Your task to perform on an android device: Open calendar and show me the second week of next month Image 0: 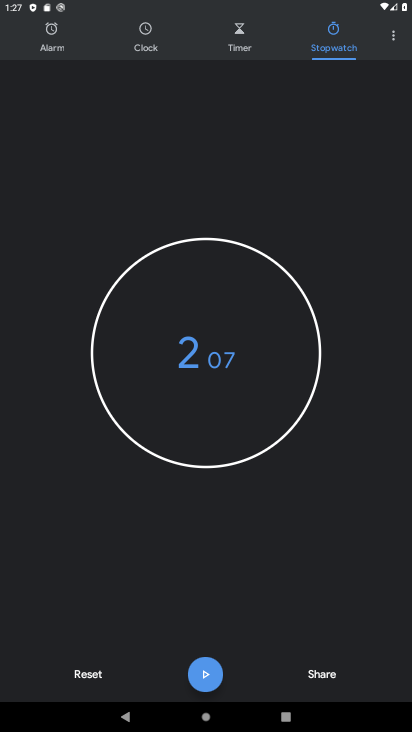
Step 0: press home button
Your task to perform on an android device: Open calendar and show me the second week of next month Image 1: 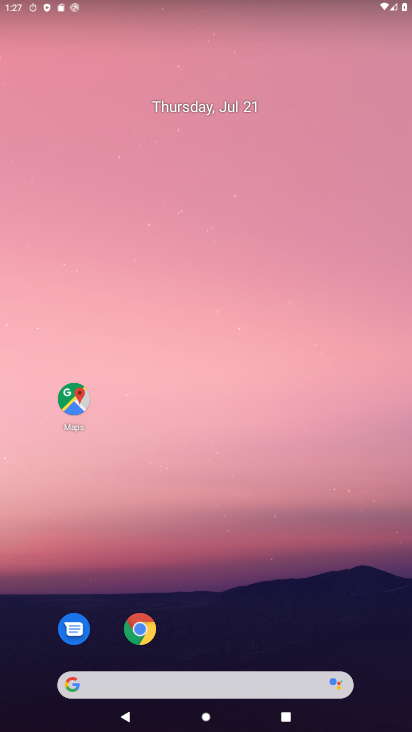
Step 1: drag from (26, 678) to (315, 127)
Your task to perform on an android device: Open calendar and show me the second week of next month Image 2: 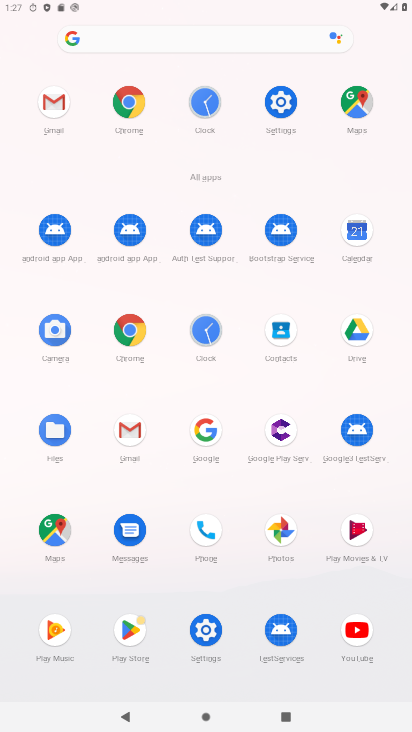
Step 2: click (351, 230)
Your task to perform on an android device: Open calendar and show me the second week of next month Image 3: 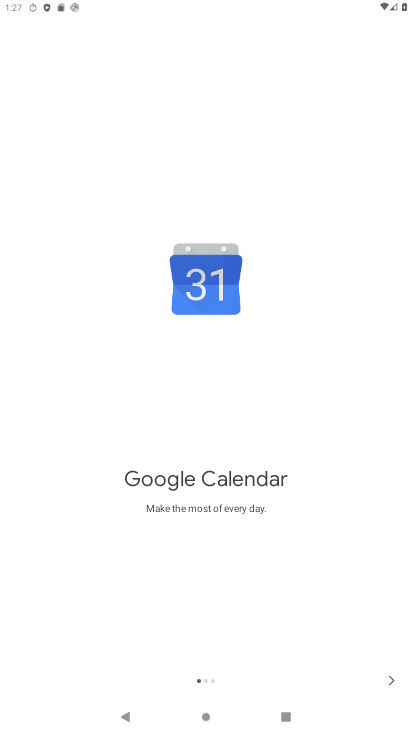
Step 3: click (393, 680)
Your task to perform on an android device: Open calendar and show me the second week of next month Image 4: 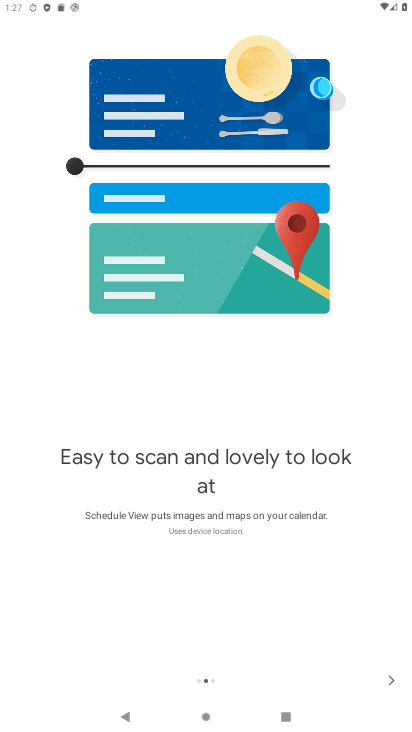
Step 4: click (394, 680)
Your task to perform on an android device: Open calendar and show me the second week of next month Image 5: 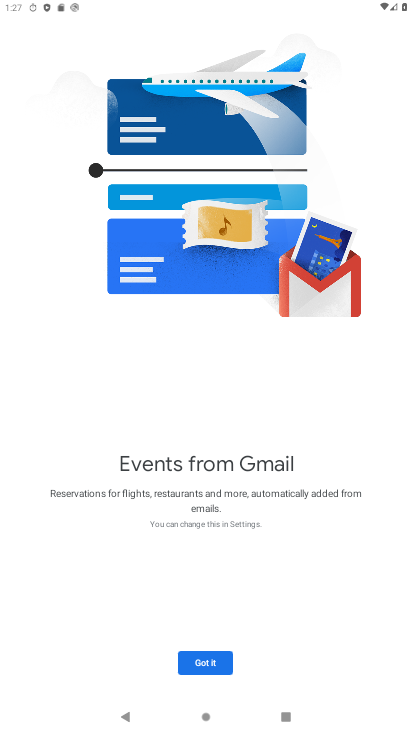
Step 5: click (182, 662)
Your task to perform on an android device: Open calendar and show me the second week of next month Image 6: 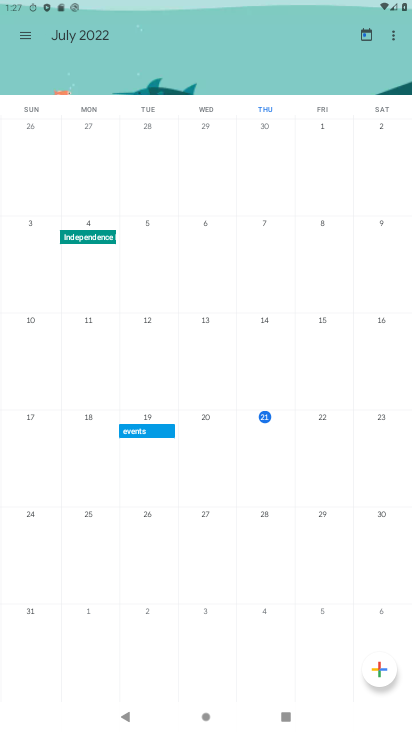
Step 6: drag from (402, 217) to (54, 174)
Your task to perform on an android device: Open calendar and show me the second week of next month Image 7: 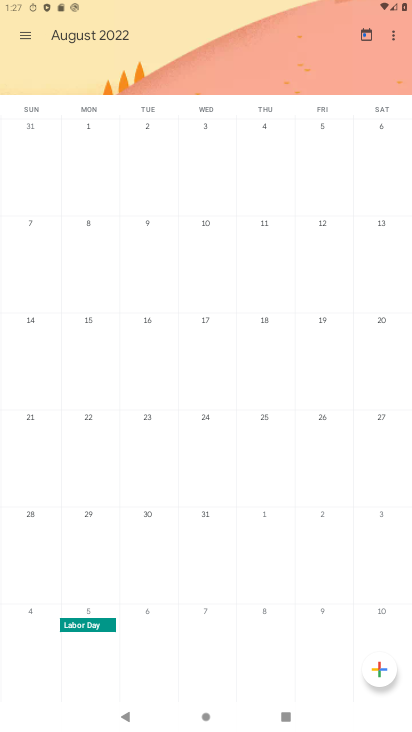
Step 7: click (82, 237)
Your task to perform on an android device: Open calendar and show me the second week of next month Image 8: 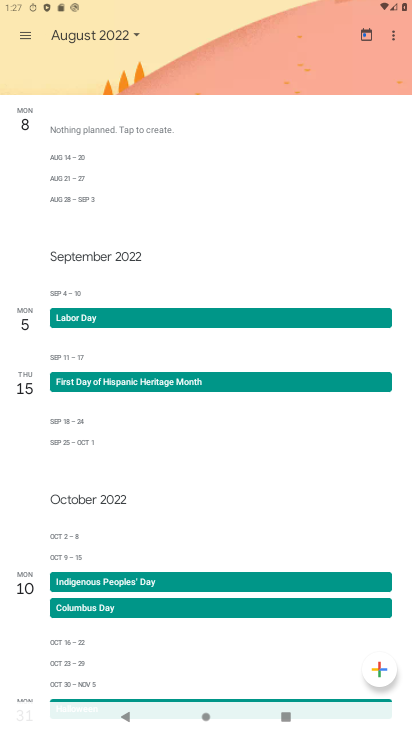
Step 8: task complete